Your task to perform on an android device: Open calendar and show me the second week of next month Image 0: 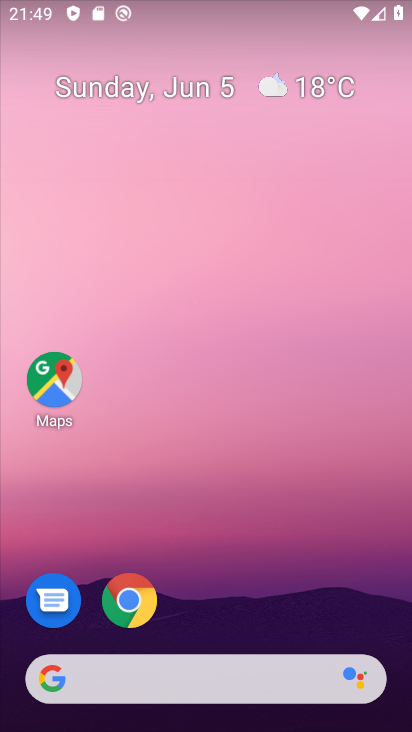
Step 0: drag from (231, 538) to (201, 172)
Your task to perform on an android device: Open calendar and show me the second week of next month Image 1: 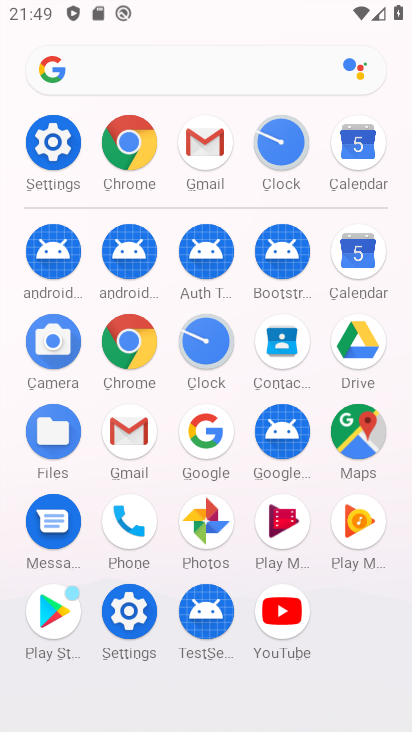
Step 1: click (356, 260)
Your task to perform on an android device: Open calendar and show me the second week of next month Image 2: 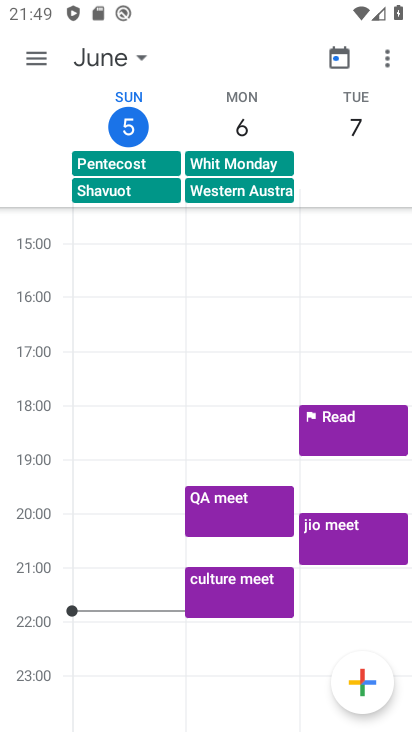
Step 2: click (75, 57)
Your task to perform on an android device: Open calendar and show me the second week of next month Image 3: 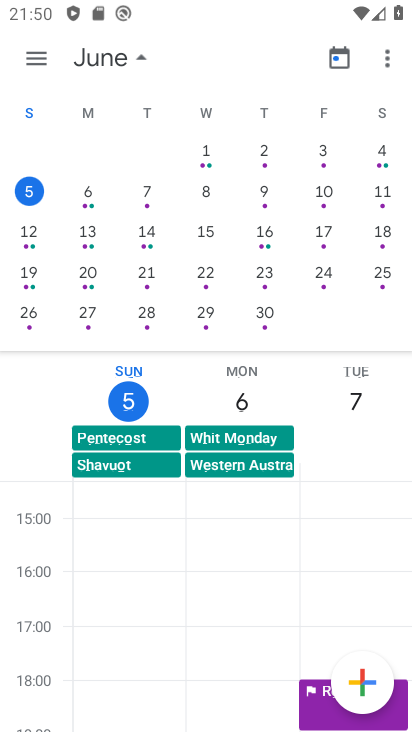
Step 3: drag from (394, 221) to (33, 240)
Your task to perform on an android device: Open calendar and show me the second week of next month Image 4: 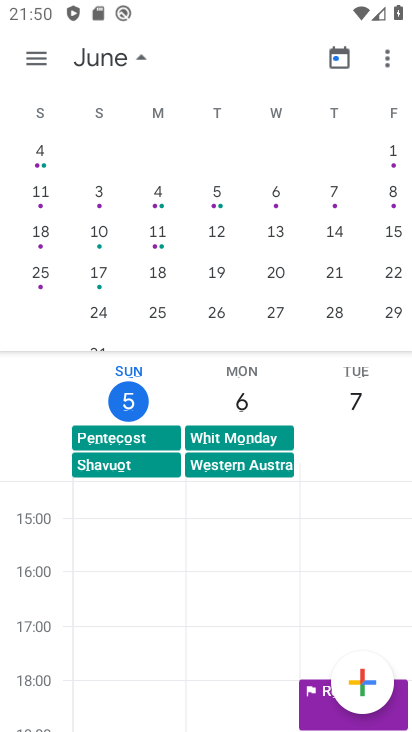
Step 4: click (41, 247)
Your task to perform on an android device: Open calendar and show me the second week of next month Image 5: 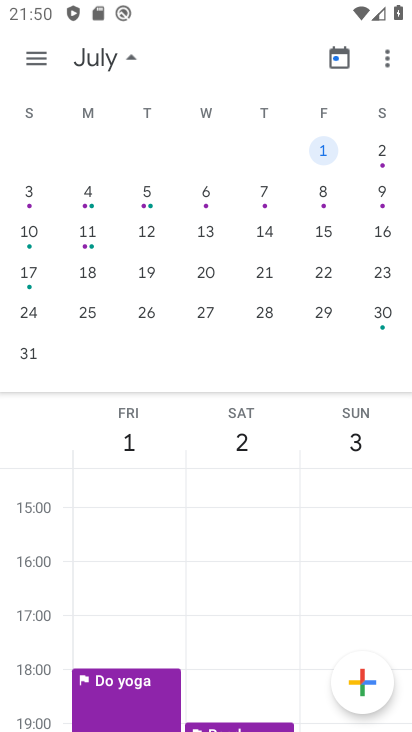
Step 5: click (21, 231)
Your task to perform on an android device: Open calendar and show me the second week of next month Image 6: 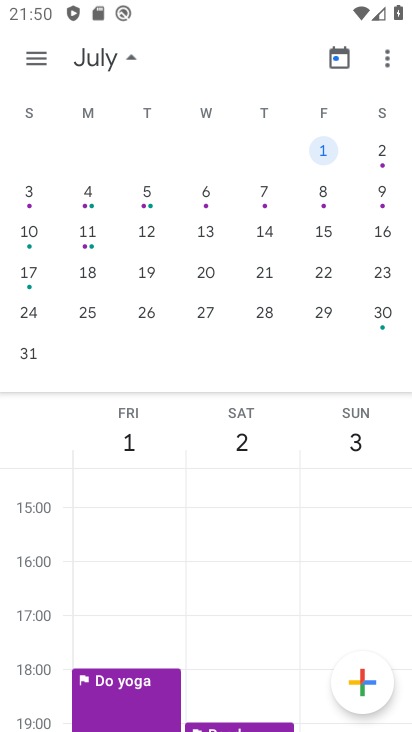
Step 6: click (26, 231)
Your task to perform on an android device: Open calendar and show me the second week of next month Image 7: 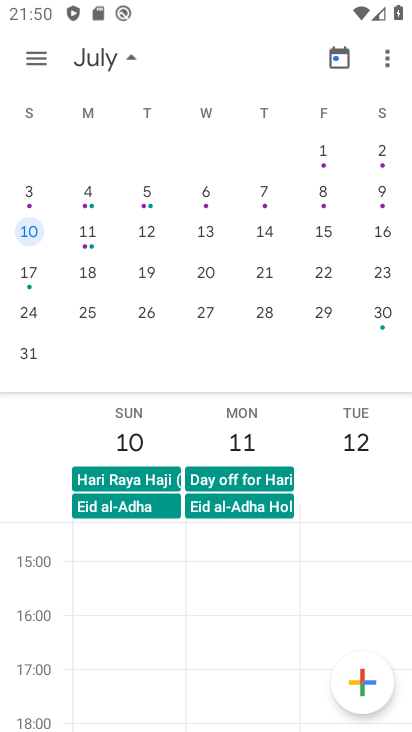
Step 7: click (34, 61)
Your task to perform on an android device: Open calendar and show me the second week of next month Image 8: 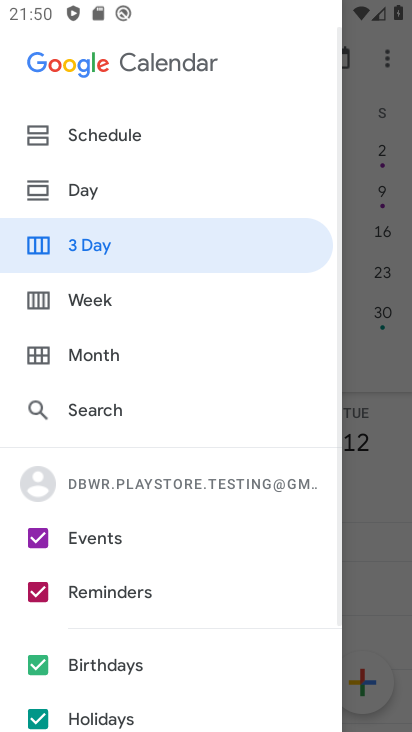
Step 8: click (81, 294)
Your task to perform on an android device: Open calendar and show me the second week of next month Image 9: 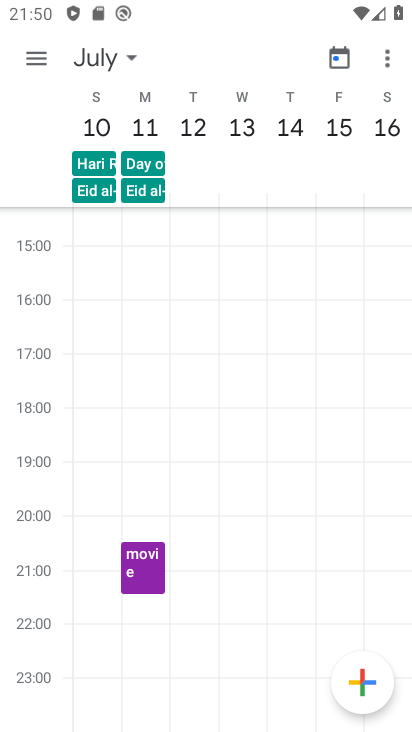
Step 9: task complete